Your task to perform on an android device: turn vacation reply on in the gmail app Image 0: 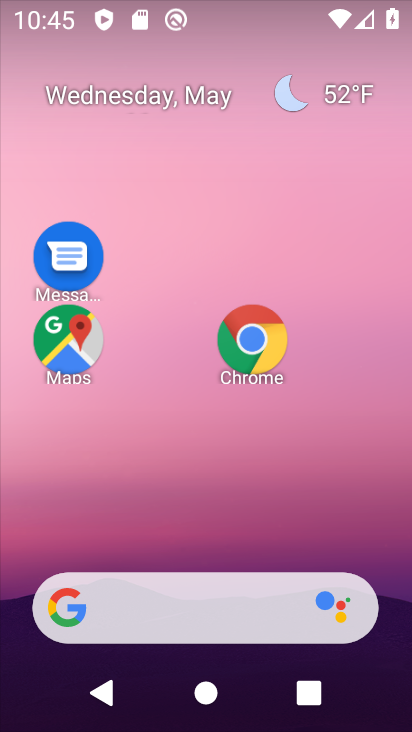
Step 0: drag from (192, 489) to (200, 28)
Your task to perform on an android device: turn vacation reply on in the gmail app Image 1: 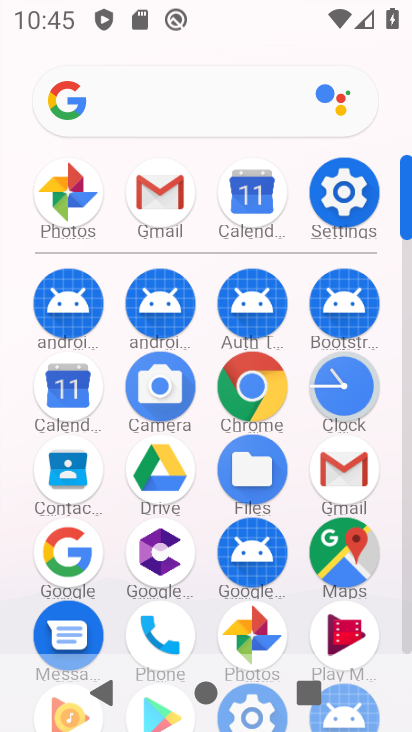
Step 1: click (166, 185)
Your task to perform on an android device: turn vacation reply on in the gmail app Image 2: 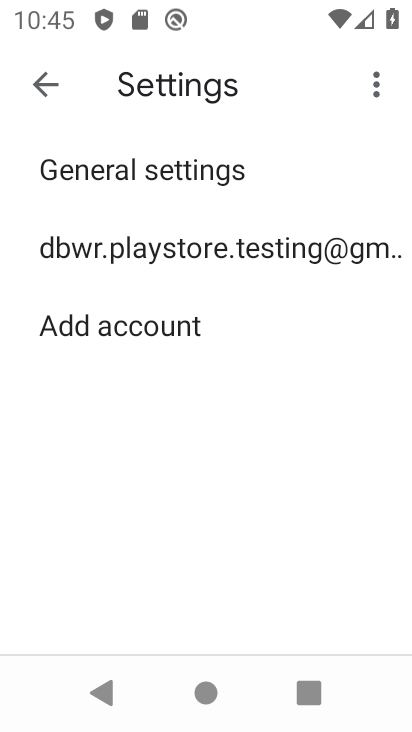
Step 2: click (191, 248)
Your task to perform on an android device: turn vacation reply on in the gmail app Image 3: 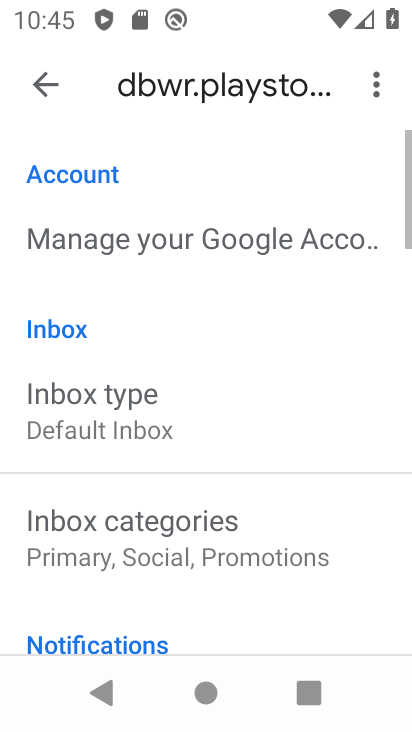
Step 3: drag from (207, 581) to (205, 63)
Your task to perform on an android device: turn vacation reply on in the gmail app Image 4: 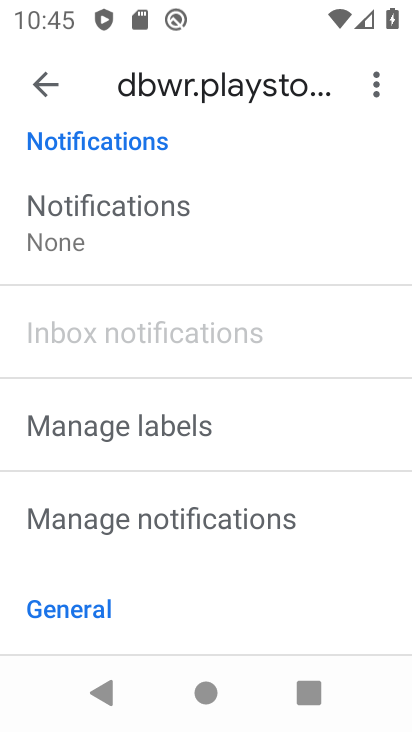
Step 4: drag from (245, 544) to (225, 140)
Your task to perform on an android device: turn vacation reply on in the gmail app Image 5: 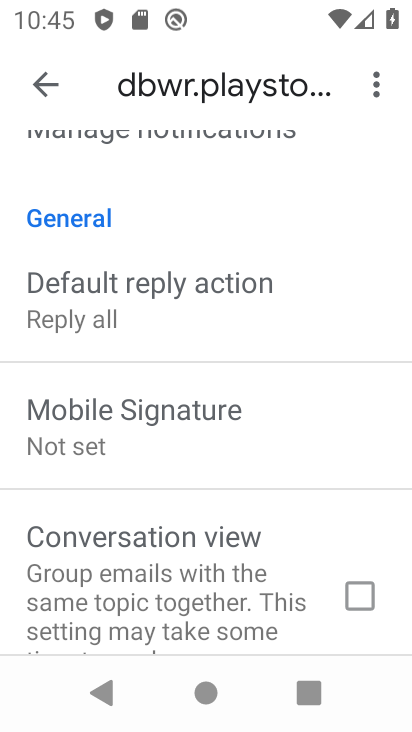
Step 5: drag from (168, 571) to (169, 141)
Your task to perform on an android device: turn vacation reply on in the gmail app Image 6: 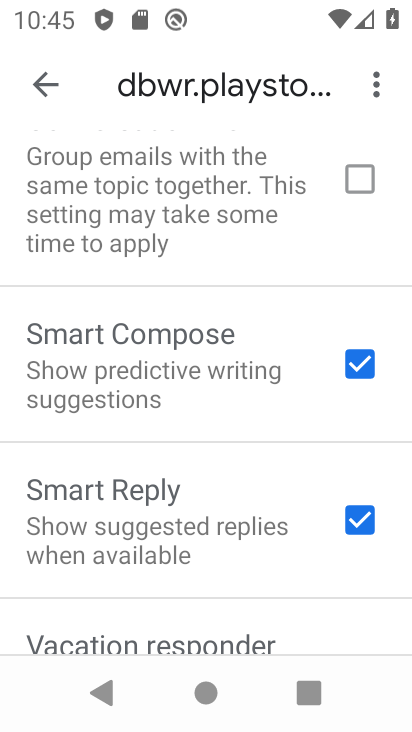
Step 6: drag from (153, 564) to (160, 268)
Your task to perform on an android device: turn vacation reply on in the gmail app Image 7: 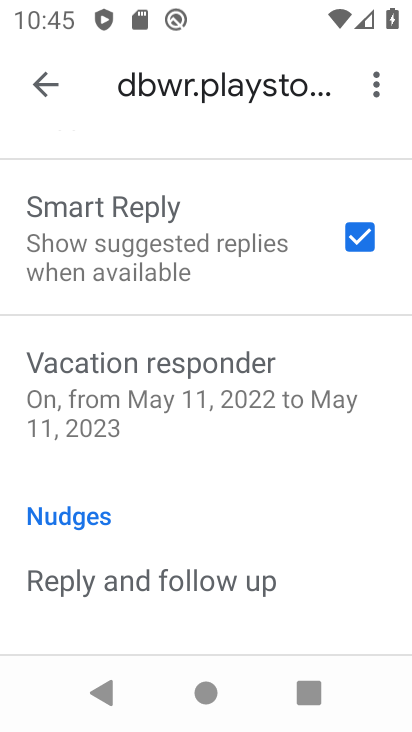
Step 7: click (150, 404)
Your task to perform on an android device: turn vacation reply on in the gmail app Image 8: 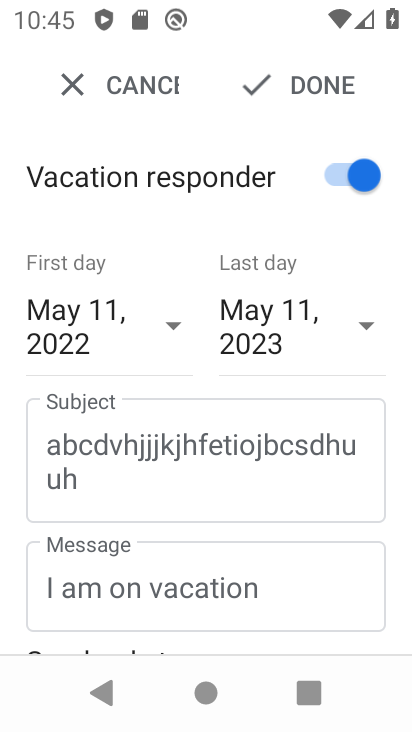
Step 8: task complete